Your task to perform on an android device: turn off location Image 0: 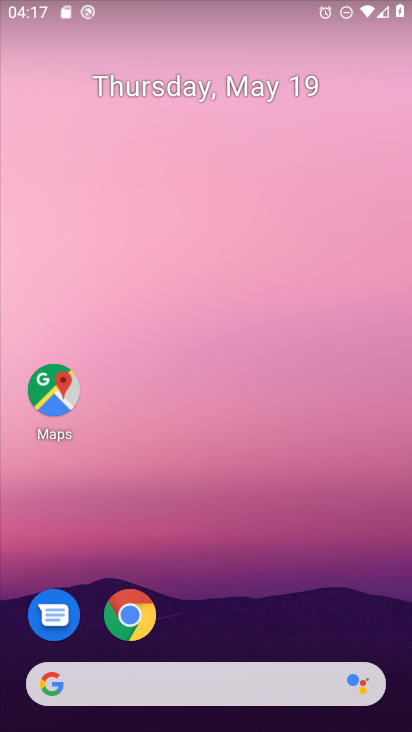
Step 0: drag from (364, 604) to (278, 98)
Your task to perform on an android device: turn off location Image 1: 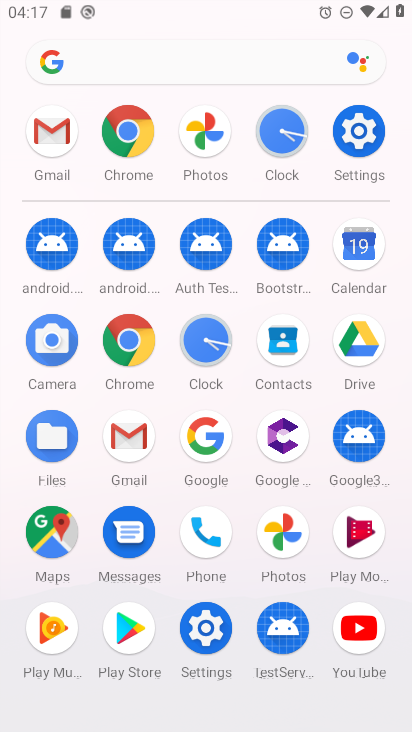
Step 1: click (359, 127)
Your task to perform on an android device: turn off location Image 2: 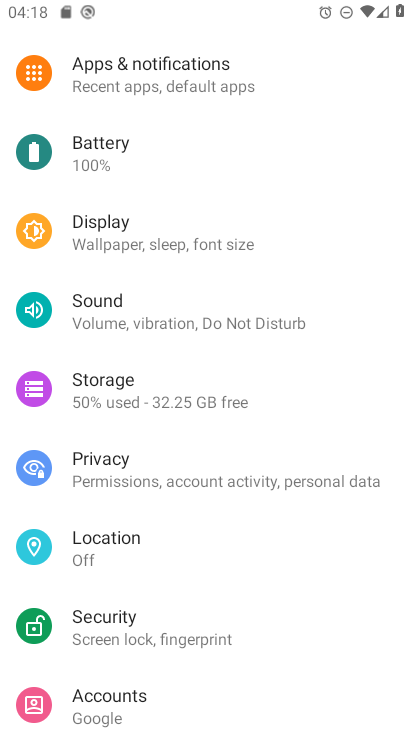
Step 2: click (273, 564)
Your task to perform on an android device: turn off location Image 3: 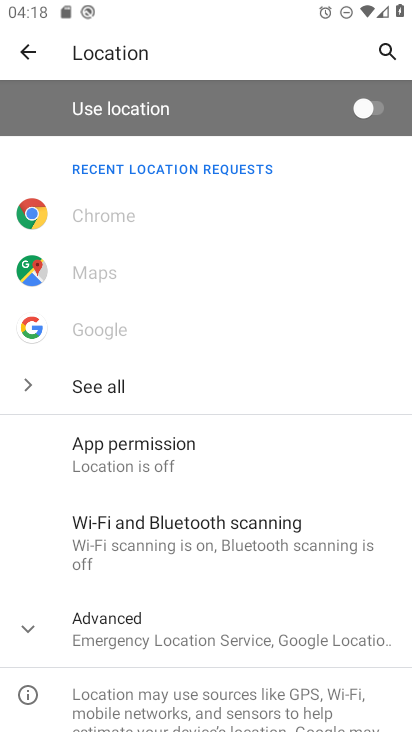
Step 3: click (298, 635)
Your task to perform on an android device: turn off location Image 4: 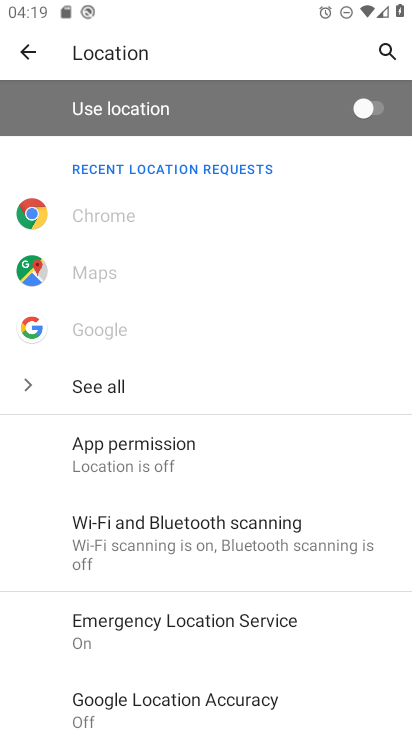
Step 4: task complete